Your task to perform on an android device: Open the calendar app, open the side menu, and click the "Day" option Image 0: 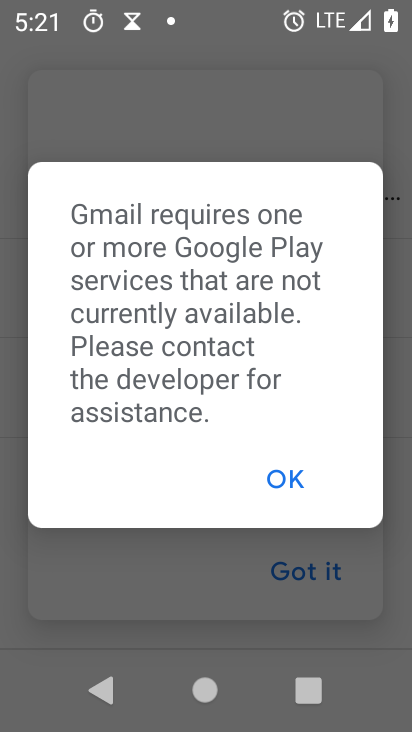
Step 0: press home button
Your task to perform on an android device: Open the calendar app, open the side menu, and click the "Day" option Image 1: 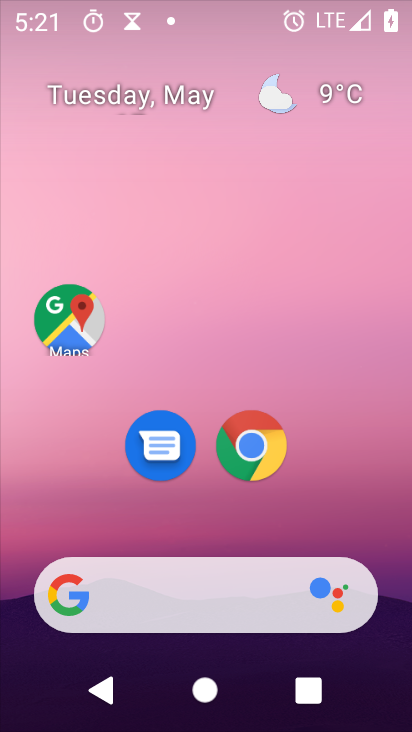
Step 1: drag from (324, 571) to (287, 50)
Your task to perform on an android device: Open the calendar app, open the side menu, and click the "Day" option Image 2: 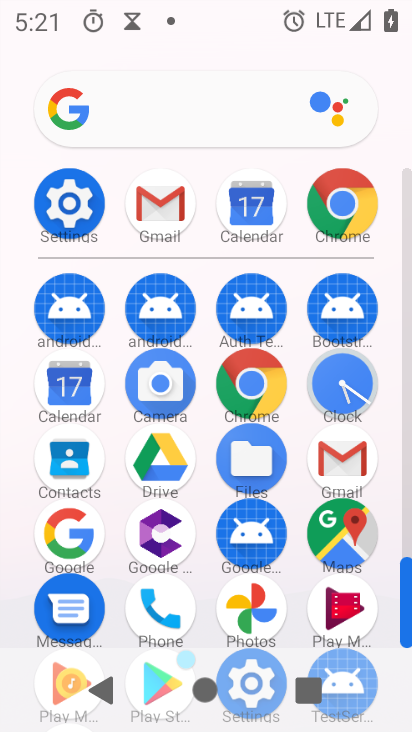
Step 2: click (74, 406)
Your task to perform on an android device: Open the calendar app, open the side menu, and click the "Day" option Image 3: 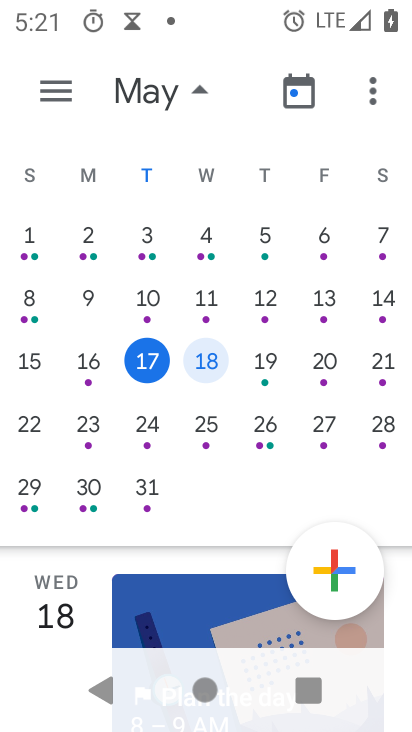
Step 3: click (49, 86)
Your task to perform on an android device: Open the calendar app, open the side menu, and click the "Day" option Image 4: 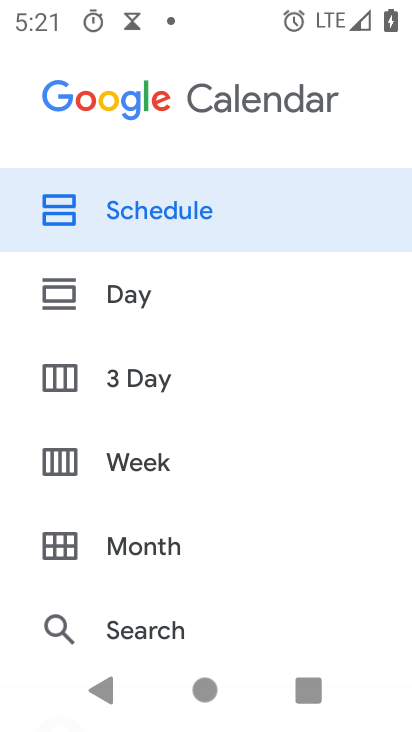
Step 4: click (140, 300)
Your task to perform on an android device: Open the calendar app, open the side menu, and click the "Day" option Image 5: 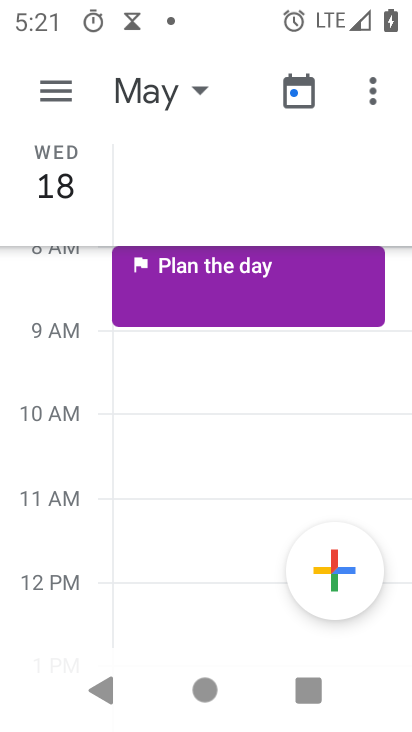
Step 5: task complete